Your task to perform on an android device: read, delete, or share a saved page in the chrome app Image 0: 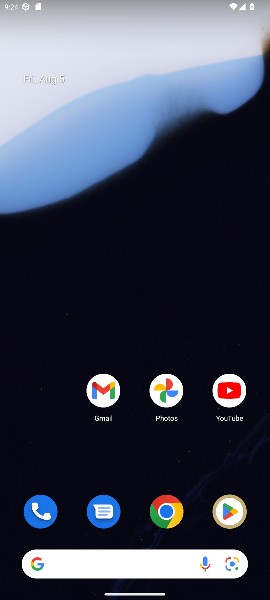
Step 0: drag from (117, 566) to (180, 354)
Your task to perform on an android device: read, delete, or share a saved page in the chrome app Image 1: 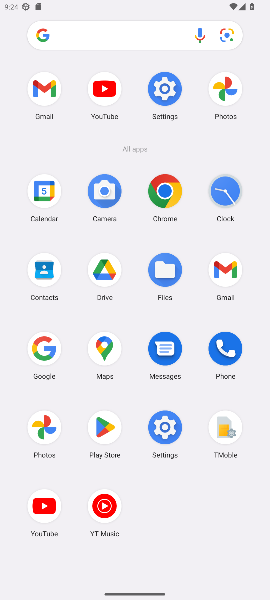
Step 1: click (164, 194)
Your task to perform on an android device: read, delete, or share a saved page in the chrome app Image 2: 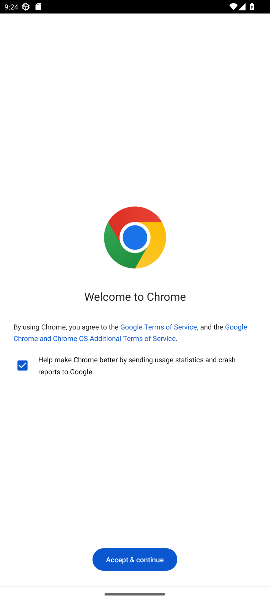
Step 2: click (140, 558)
Your task to perform on an android device: read, delete, or share a saved page in the chrome app Image 3: 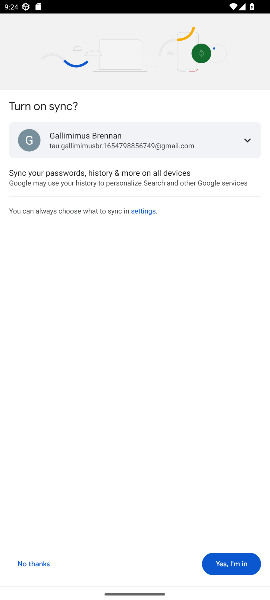
Step 3: click (231, 565)
Your task to perform on an android device: read, delete, or share a saved page in the chrome app Image 4: 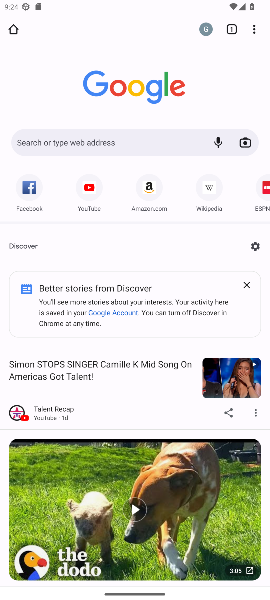
Step 4: click (256, 31)
Your task to perform on an android device: read, delete, or share a saved page in the chrome app Image 5: 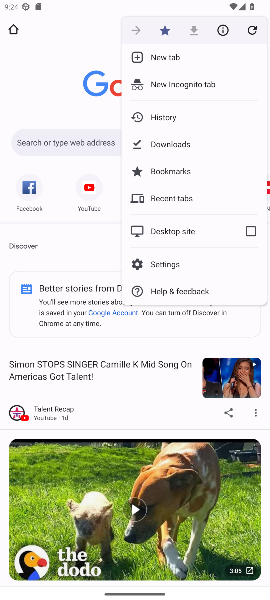
Step 5: click (168, 144)
Your task to perform on an android device: read, delete, or share a saved page in the chrome app Image 6: 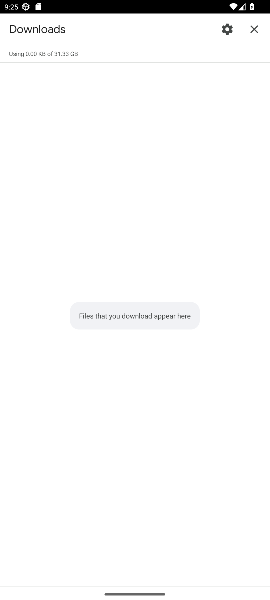
Step 6: task complete